Your task to perform on an android device: Do I have any events tomorrow? Image 0: 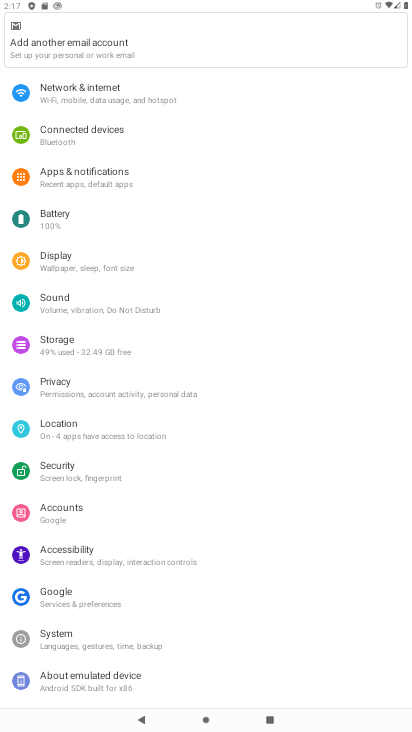
Step 0: press home button
Your task to perform on an android device: Do I have any events tomorrow? Image 1: 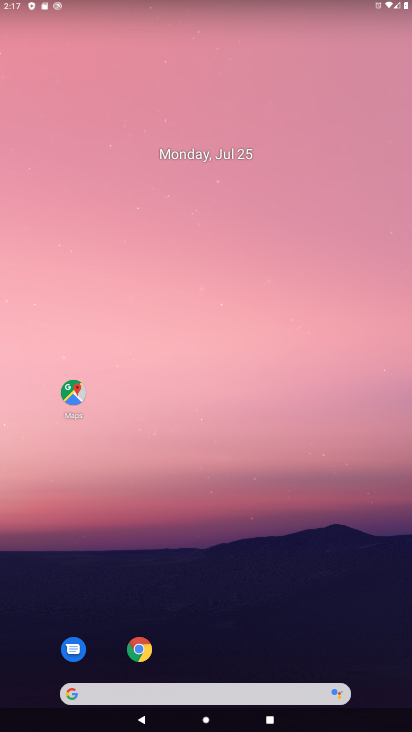
Step 1: drag from (381, 658) to (322, 175)
Your task to perform on an android device: Do I have any events tomorrow? Image 2: 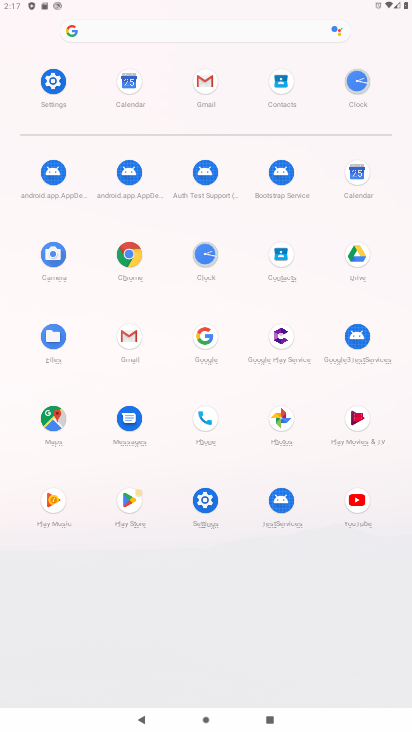
Step 2: click (356, 167)
Your task to perform on an android device: Do I have any events tomorrow? Image 3: 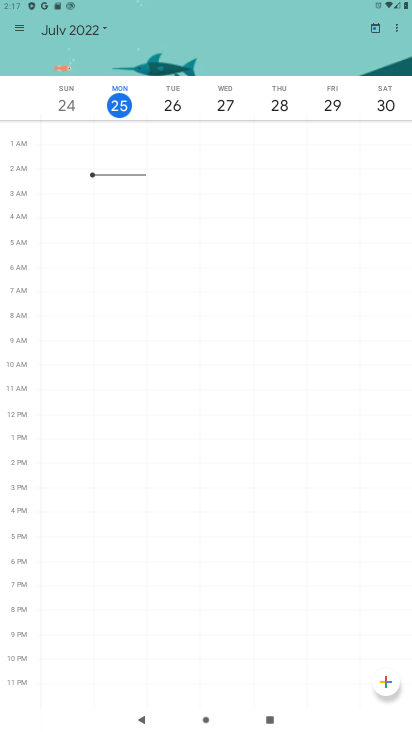
Step 3: click (19, 25)
Your task to perform on an android device: Do I have any events tomorrow? Image 4: 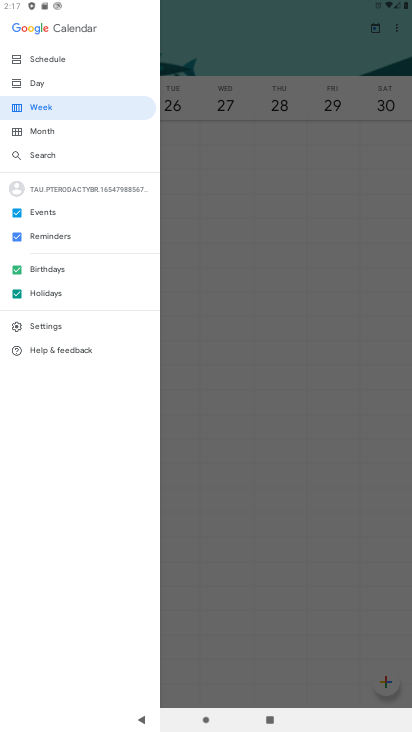
Step 4: click (34, 77)
Your task to perform on an android device: Do I have any events tomorrow? Image 5: 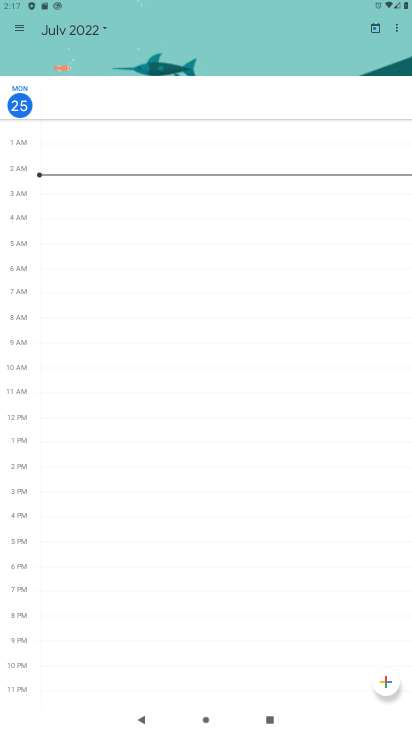
Step 5: click (100, 24)
Your task to perform on an android device: Do I have any events tomorrow? Image 6: 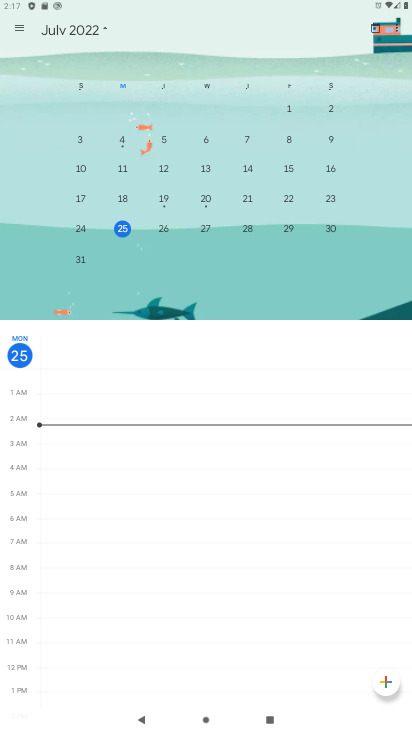
Step 6: click (161, 227)
Your task to perform on an android device: Do I have any events tomorrow? Image 7: 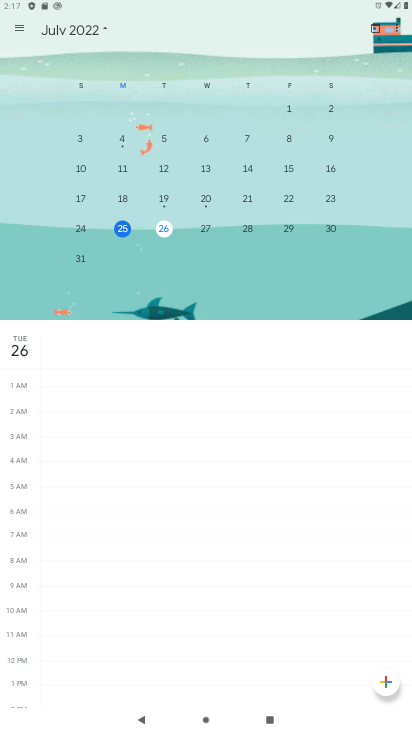
Step 7: task complete